Your task to perform on an android device: turn off data saver in the chrome app Image 0: 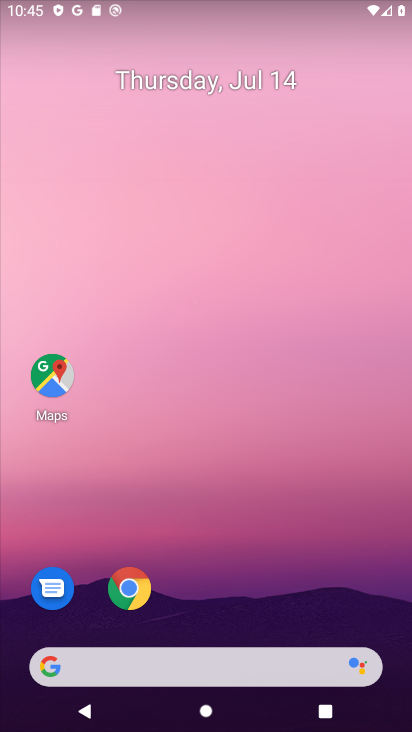
Step 0: press home button
Your task to perform on an android device: turn off data saver in the chrome app Image 1: 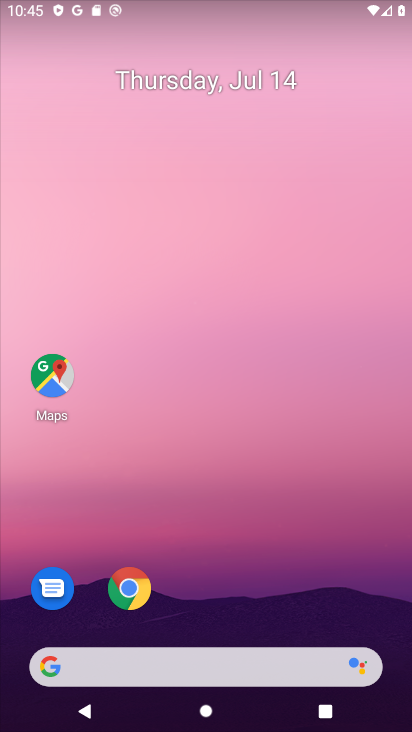
Step 1: drag from (219, 677) to (321, 65)
Your task to perform on an android device: turn off data saver in the chrome app Image 2: 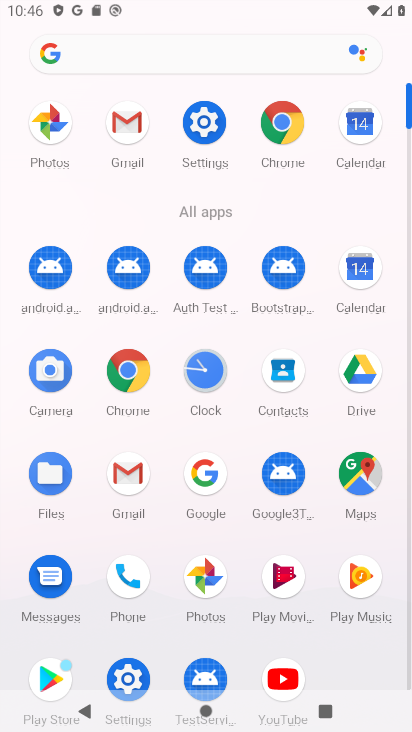
Step 2: click (281, 134)
Your task to perform on an android device: turn off data saver in the chrome app Image 3: 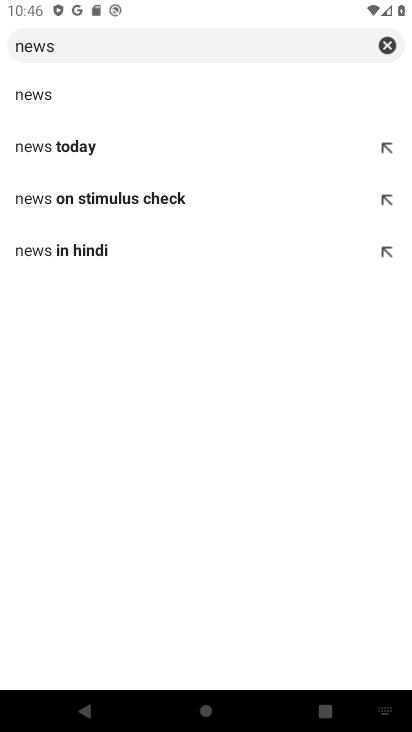
Step 3: click (388, 41)
Your task to perform on an android device: turn off data saver in the chrome app Image 4: 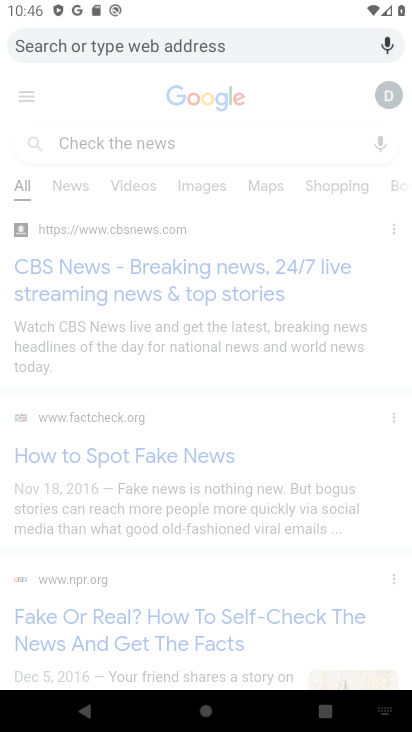
Step 4: click (216, 128)
Your task to perform on an android device: turn off data saver in the chrome app Image 5: 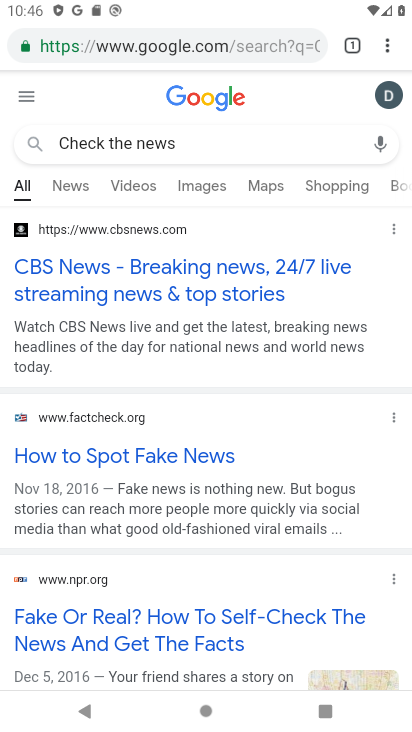
Step 5: drag from (386, 45) to (254, 540)
Your task to perform on an android device: turn off data saver in the chrome app Image 6: 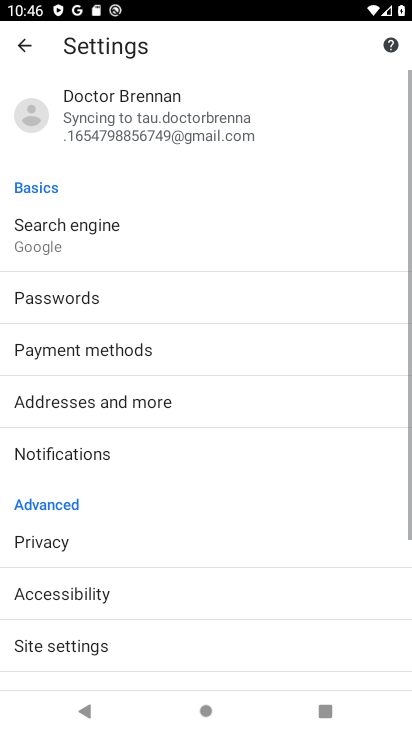
Step 6: drag from (70, 604) to (39, 114)
Your task to perform on an android device: turn off data saver in the chrome app Image 7: 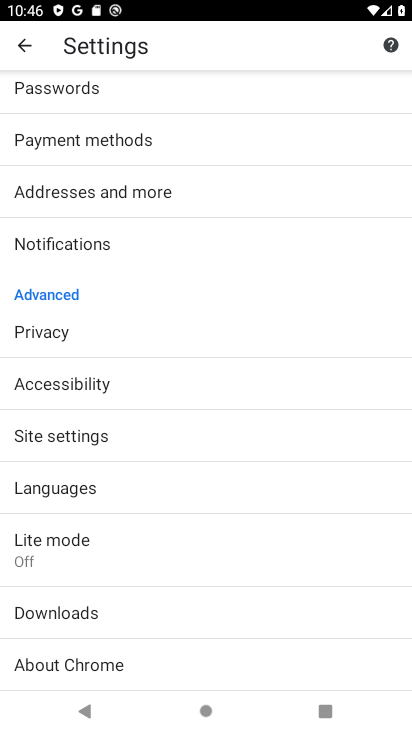
Step 7: click (55, 528)
Your task to perform on an android device: turn off data saver in the chrome app Image 8: 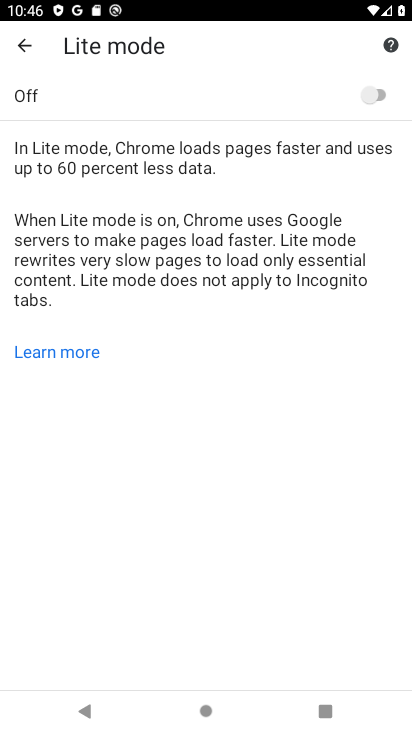
Step 8: click (135, 100)
Your task to perform on an android device: turn off data saver in the chrome app Image 9: 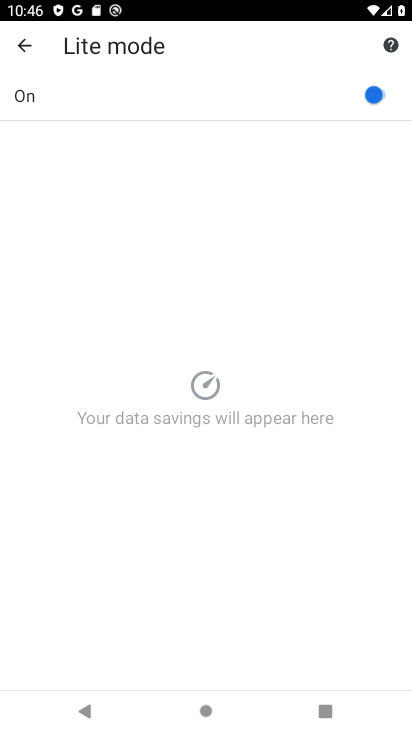
Step 9: click (135, 100)
Your task to perform on an android device: turn off data saver in the chrome app Image 10: 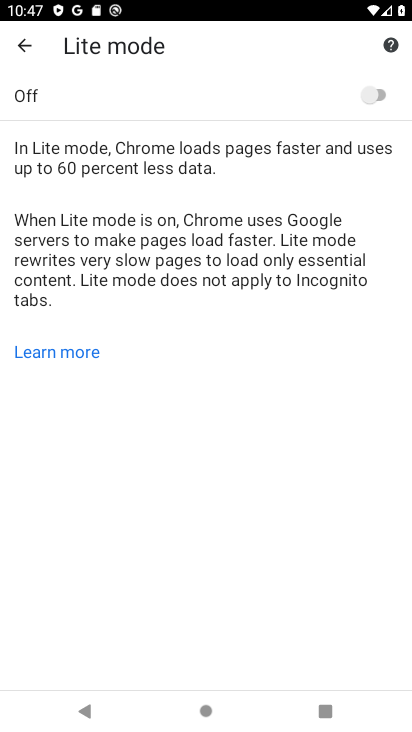
Step 10: task complete